Your task to perform on an android device: turn off airplane mode Image 0: 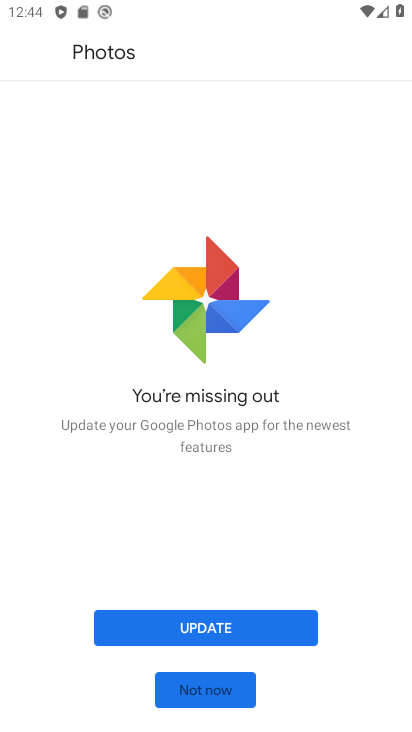
Step 0: press home button
Your task to perform on an android device: turn off airplane mode Image 1: 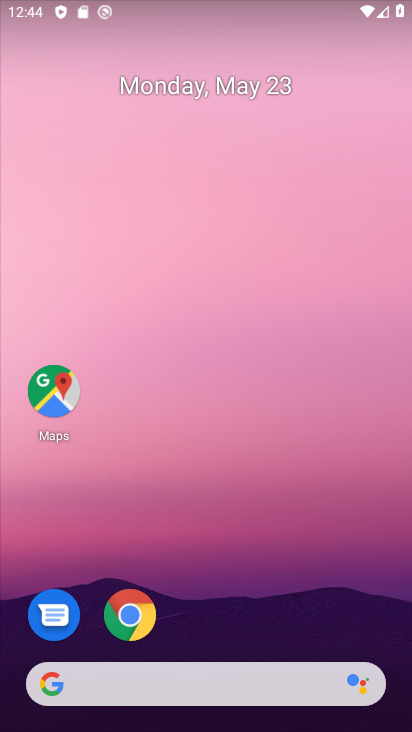
Step 1: drag from (196, 724) to (185, 80)
Your task to perform on an android device: turn off airplane mode Image 2: 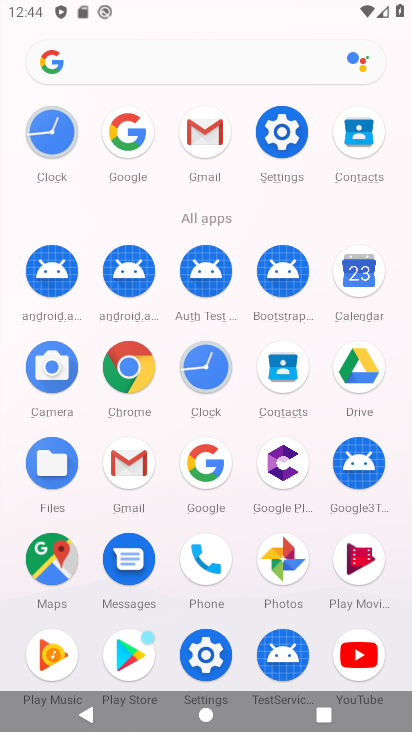
Step 2: click (282, 126)
Your task to perform on an android device: turn off airplane mode Image 3: 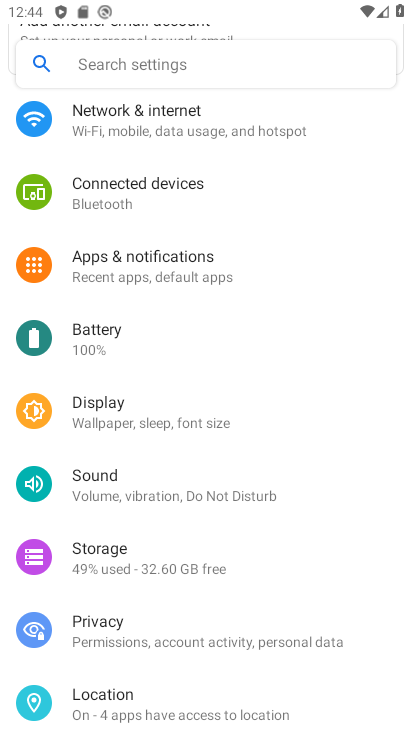
Step 3: drag from (149, 142) to (205, 533)
Your task to perform on an android device: turn off airplane mode Image 4: 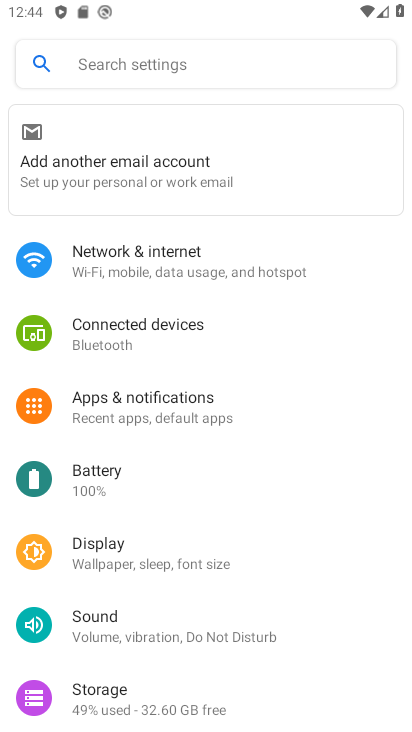
Step 4: click (127, 255)
Your task to perform on an android device: turn off airplane mode Image 5: 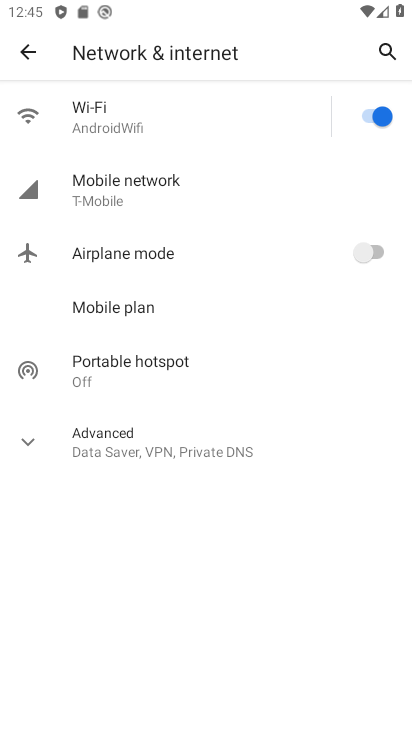
Step 5: task complete